Your task to perform on an android device: Open my contact list Image 0: 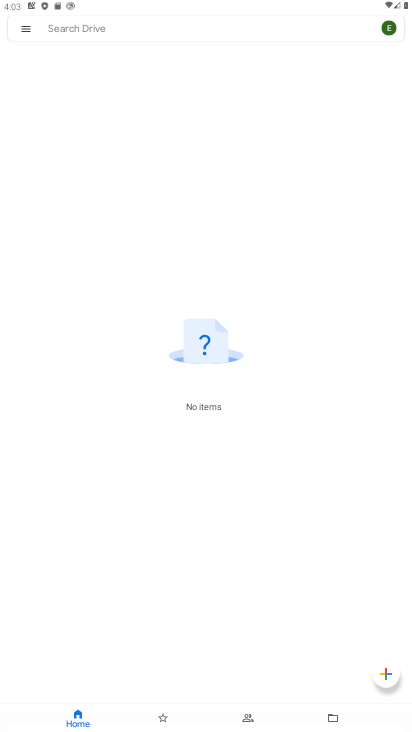
Step 0: press home button
Your task to perform on an android device: Open my contact list Image 1: 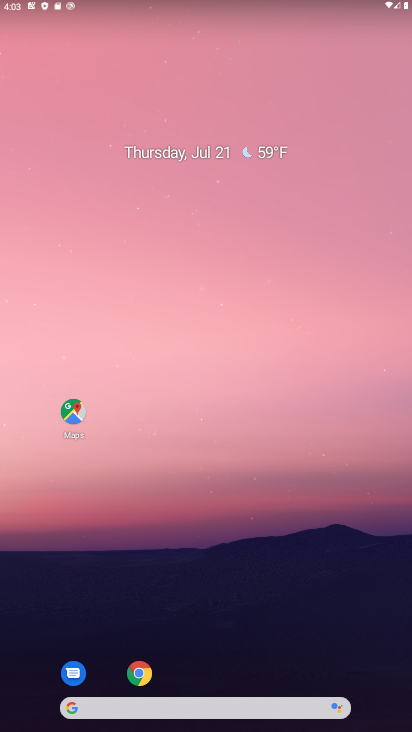
Step 1: drag from (373, 666) to (315, 163)
Your task to perform on an android device: Open my contact list Image 2: 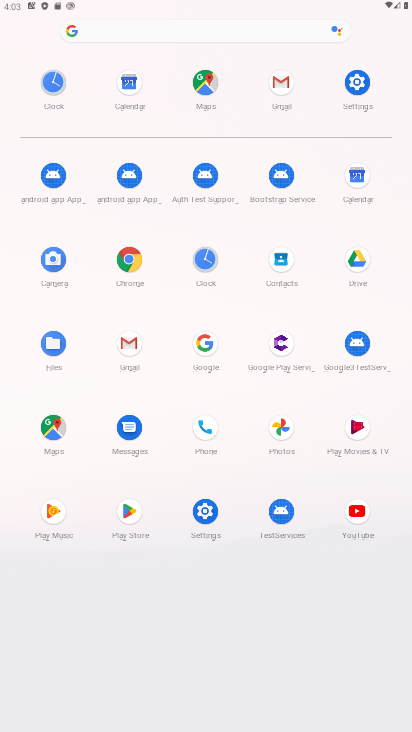
Step 2: click (281, 261)
Your task to perform on an android device: Open my contact list Image 3: 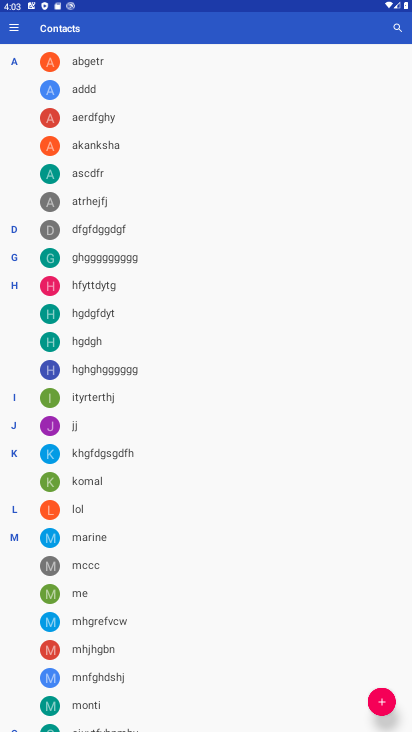
Step 3: task complete